Your task to perform on an android device: Open Reddit.com Image 0: 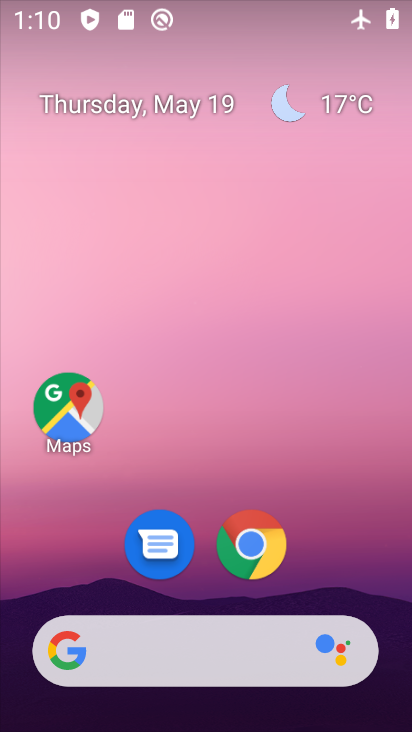
Step 0: click (249, 534)
Your task to perform on an android device: Open Reddit.com Image 1: 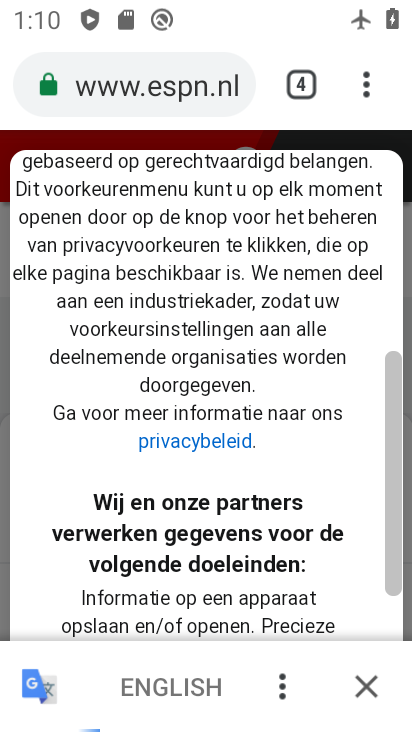
Step 1: click (368, 94)
Your task to perform on an android device: Open Reddit.com Image 2: 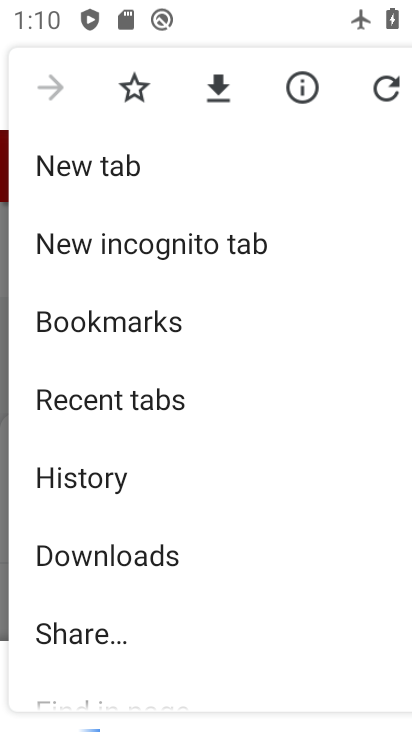
Step 2: click (107, 158)
Your task to perform on an android device: Open Reddit.com Image 3: 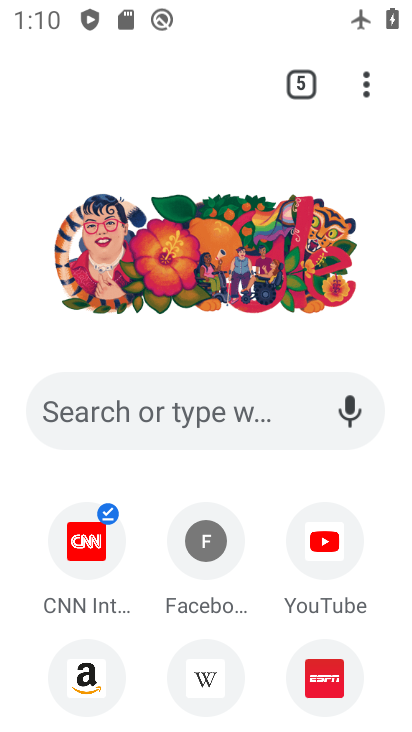
Step 3: click (169, 416)
Your task to perform on an android device: Open Reddit.com Image 4: 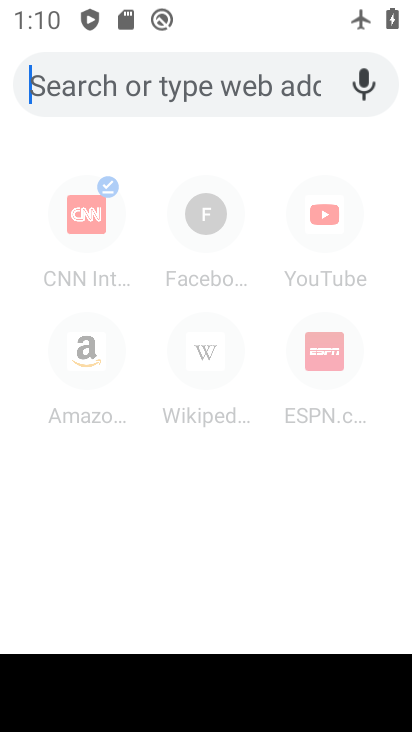
Step 4: type "Reddit.com"
Your task to perform on an android device: Open Reddit.com Image 5: 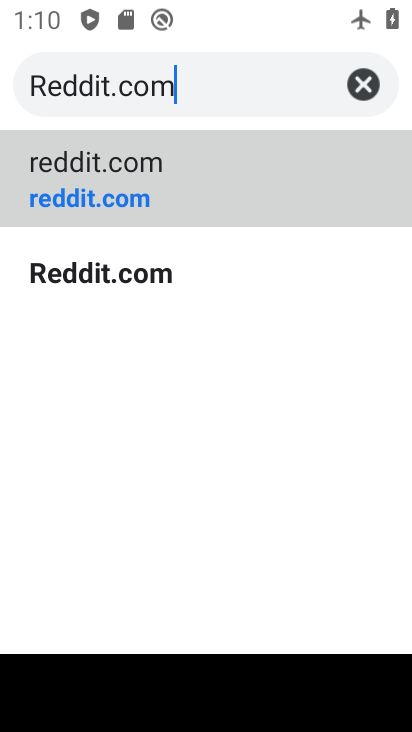
Step 5: click (94, 169)
Your task to perform on an android device: Open Reddit.com Image 6: 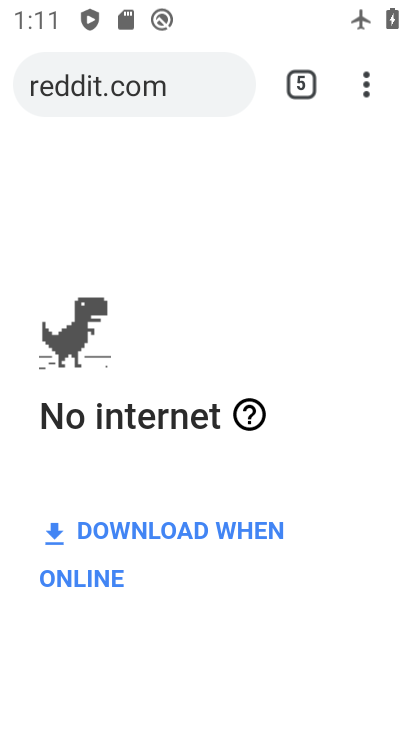
Step 6: task complete